Your task to perform on an android device: Go to calendar. Show me events next week Image 0: 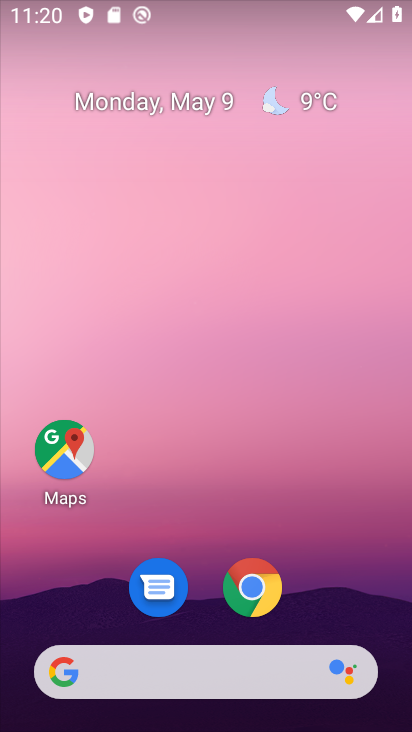
Step 0: drag from (188, 631) to (194, 275)
Your task to perform on an android device: Go to calendar. Show me events next week Image 1: 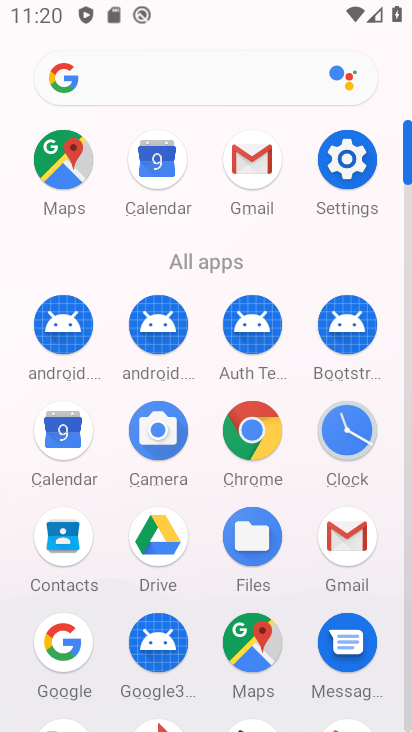
Step 1: click (40, 446)
Your task to perform on an android device: Go to calendar. Show me events next week Image 2: 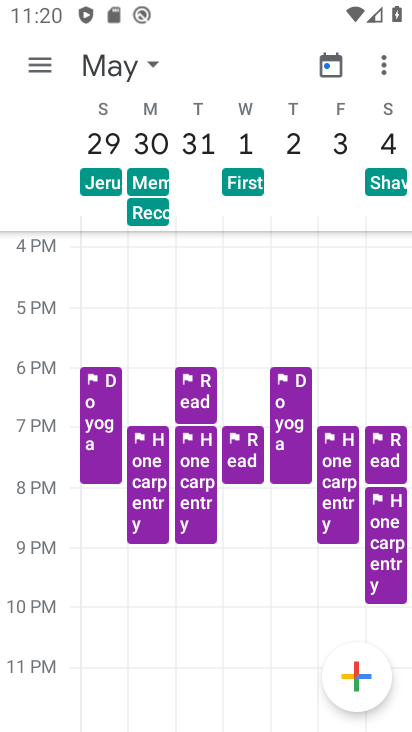
Step 2: click (116, 71)
Your task to perform on an android device: Go to calendar. Show me events next week Image 3: 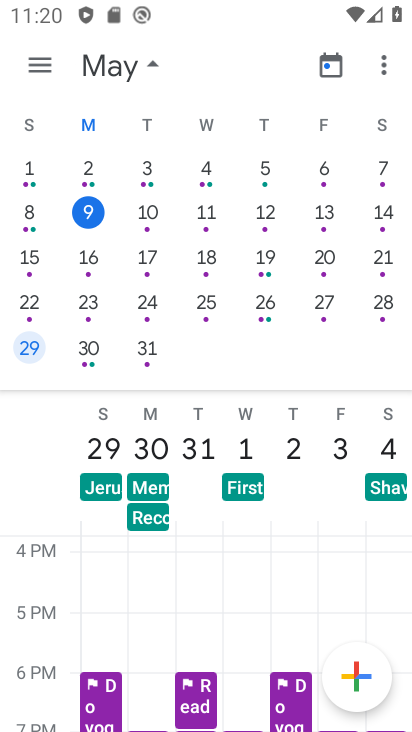
Step 3: click (205, 216)
Your task to perform on an android device: Go to calendar. Show me events next week Image 4: 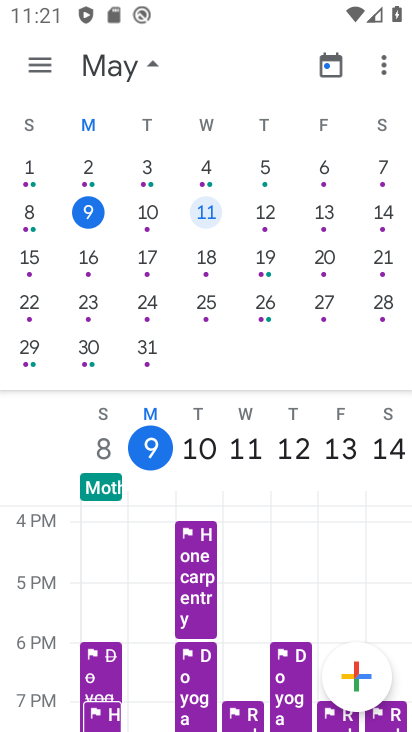
Step 4: click (131, 212)
Your task to perform on an android device: Go to calendar. Show me events next week Image 5: 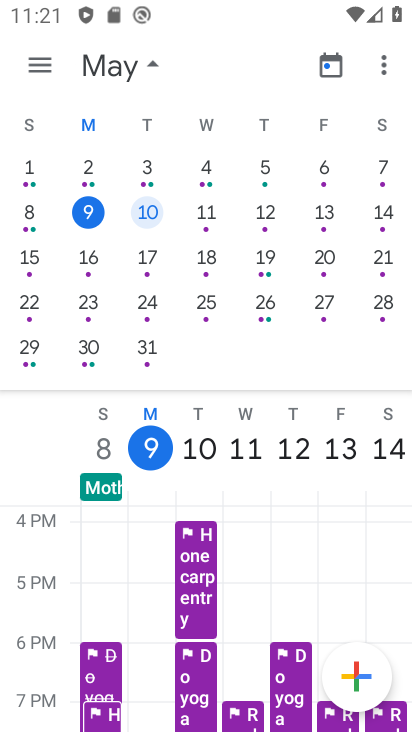
Step 5: click (204, 209)
Your task to perform on an android device: Go to calendar. Show me events next week Image 6: 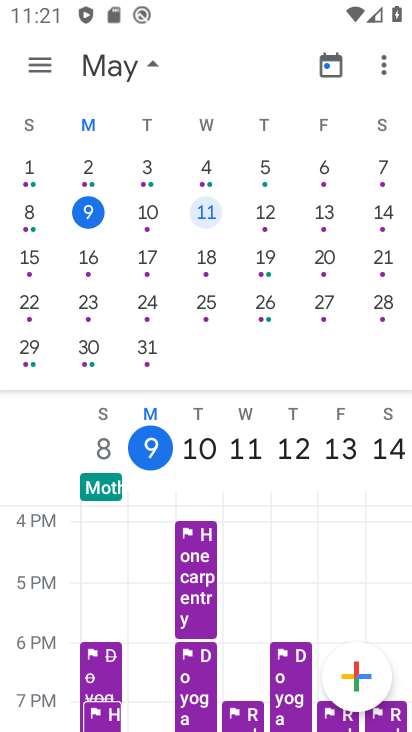
Step 6: click (258, 205)
Your task to perform on an android device: Go to calendar. Show me events next week Image 7: 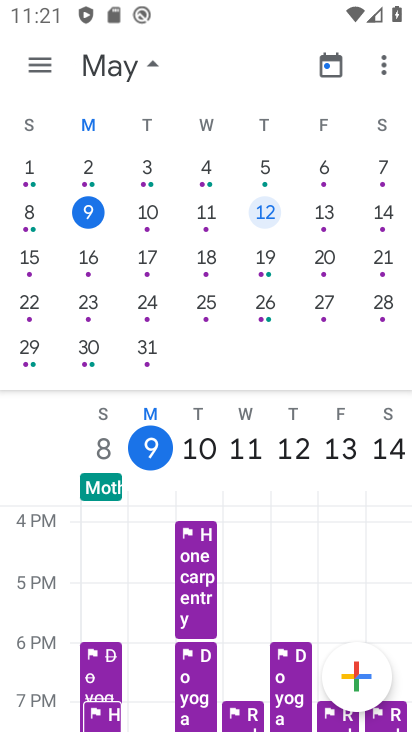
Step 7: click (33, 69)
Your task to perform on an android device: Go to calendar. Show me events next week Image 8: 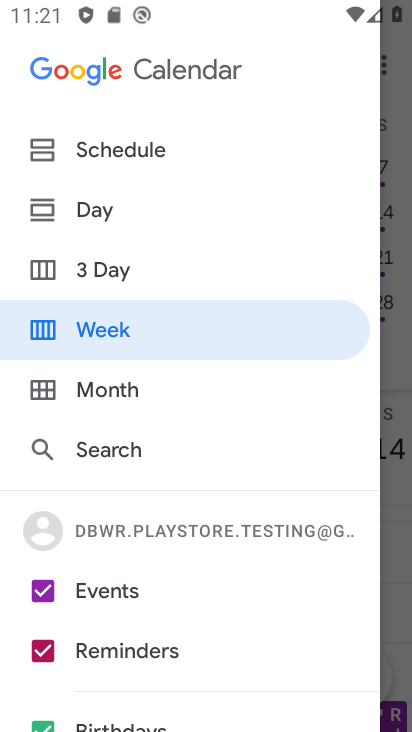
Step 8: click (153, 591)
Your task to perform on an android device: Go to calendar. Show me events next week Image 9: 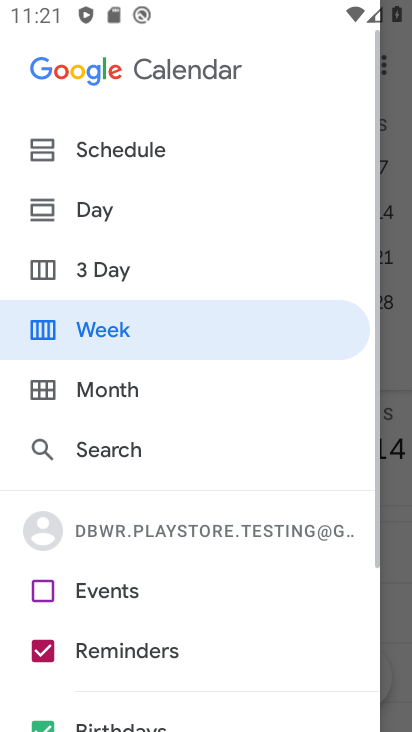
Step 9: click (152, 590)
Your task to perform on an android device: Go to calendar. Show me events next week Image 10: 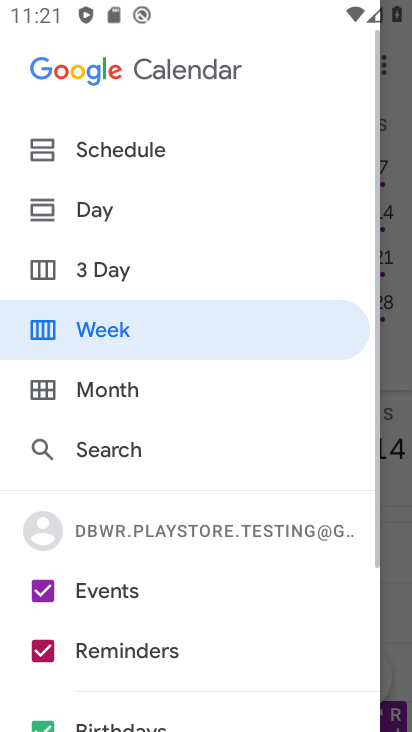
Step 10: click (80, 341)
Your task to perform on an android device: Go to calendar. Show me events next week Image 11: 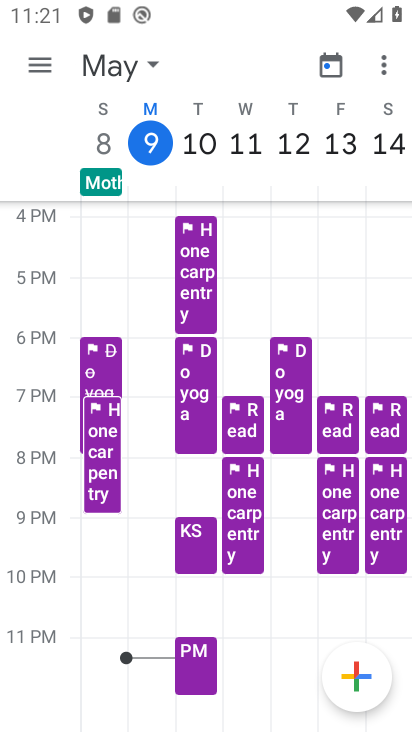
Step 11: task complete